Your task to perform on an android device: Check the weather Image 0: 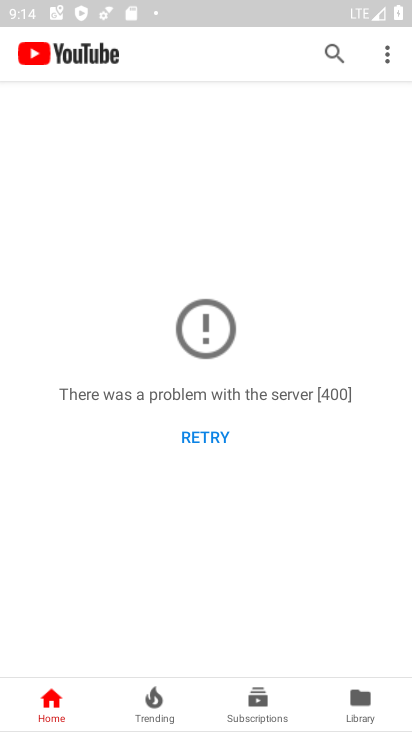
Step 0: press home button
Your task to perform on an android device: Check the weather Image 1: 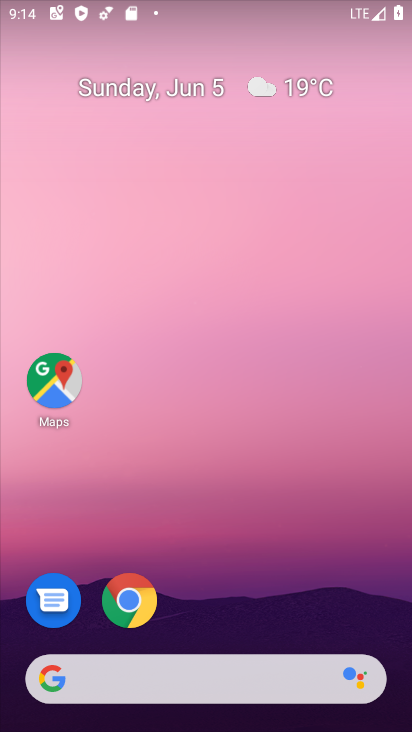
Step 1: click (242, 673)
Your task to perform on an android device: Check the weather Image 2: 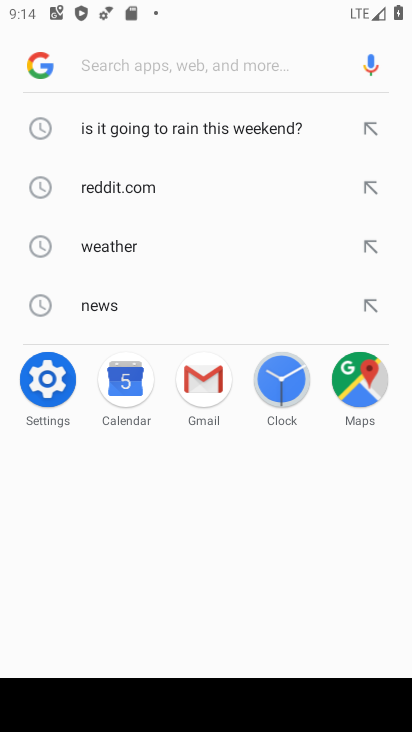
Step 2: click (119, 261)
Your task to perform on an android device: Check the weather Image 3: 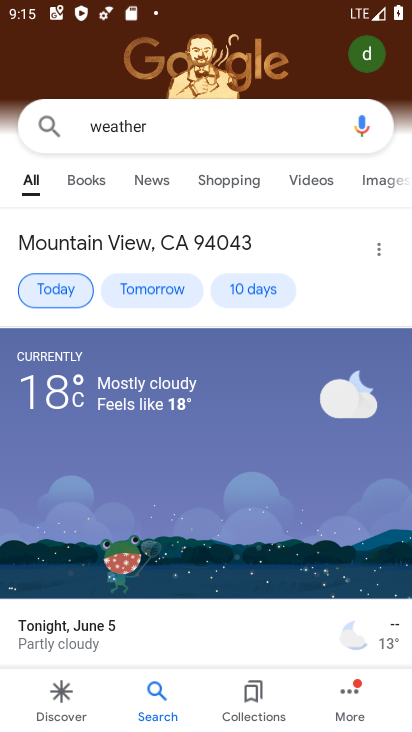
Step 3: task complete